Your task to perform on an android device: Open privacy settings Image 0: 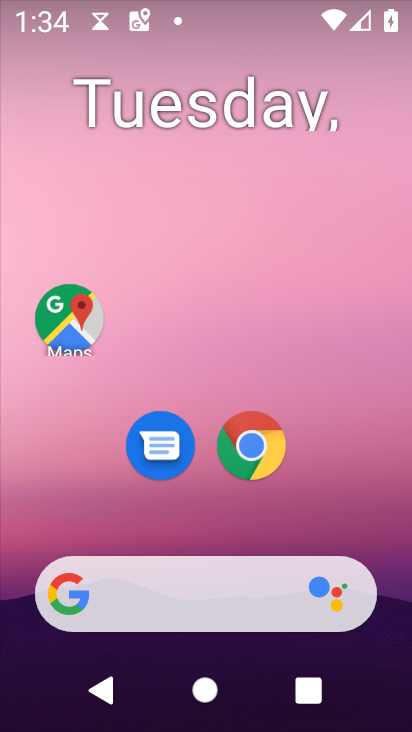
Step 0: drag from (268, 548) to (323, 137)
Your task to perform on an android device: Open privacy settings Image 1: 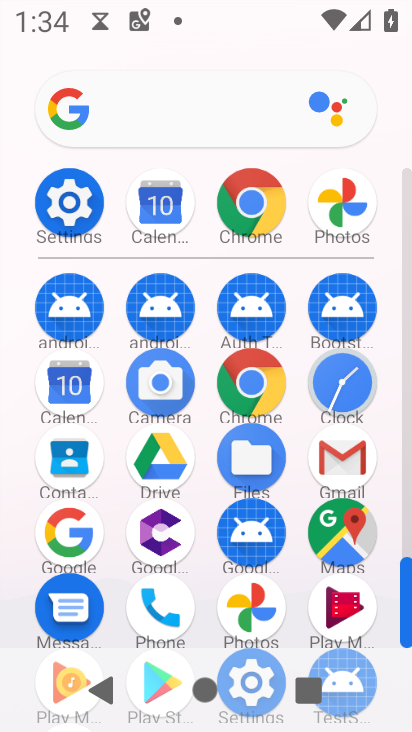
Step 1: drag from (288, 634) to (312, 349)
Your task to perform on an android device: Open privacy settings Image 2: 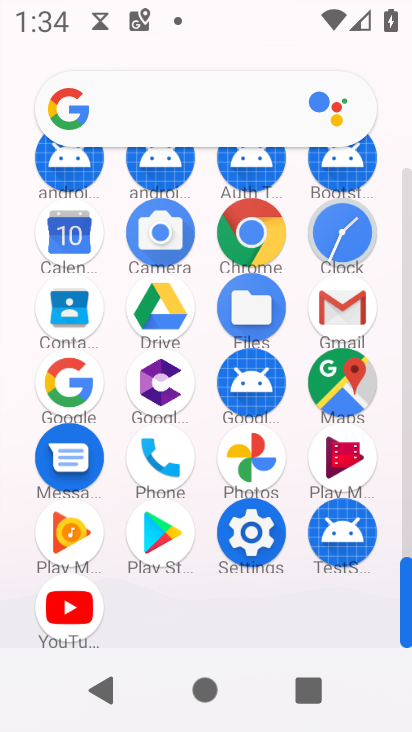
Step 2: click (258, 547)
Your task to perform on an android device: Open privacy settings Image 3: 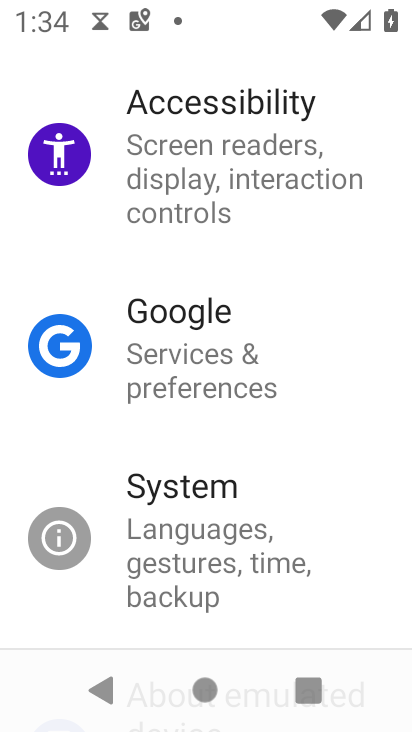
Step 3: drag from (279, 187) to (296, 655)
Your task to perform on an android device: Open privacy settings Image 4: 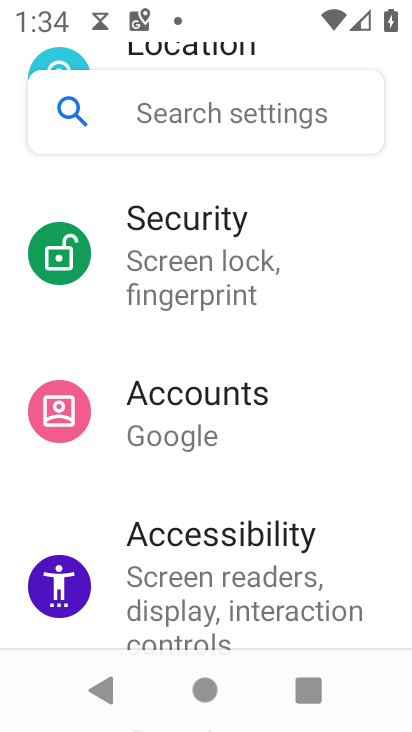
Step 4: drag from (248, 273) to (298, 682)
Your task to perform on an android device: Open privacy settings Image 5: 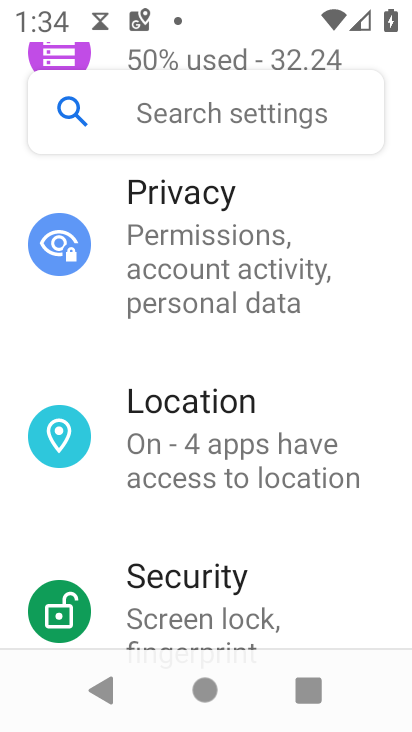
Step 5: drag from (251, 333) to (277, 669)
Your task to perform on an android device: Open privacy settings Image 6: 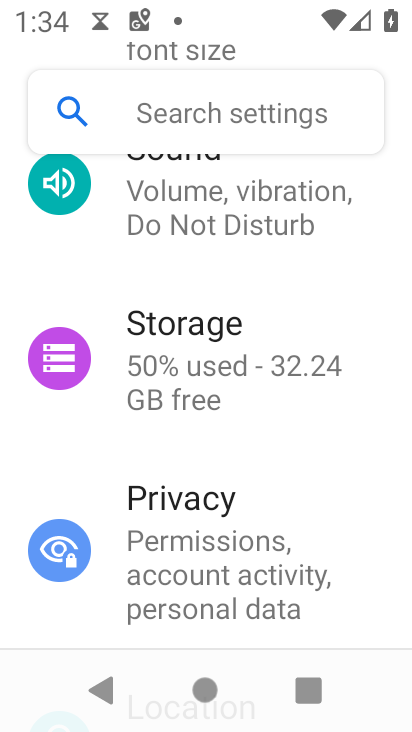
Step 6: click (272, 596)
Your task to perform on an android device: Open privacy settings Image 7: 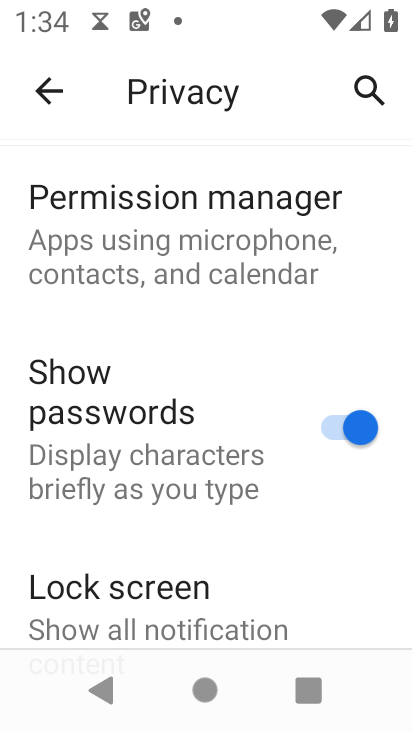
Step 7: task complete